Your task to perform on an android device: Is it going to rain this weekend? Image 0: 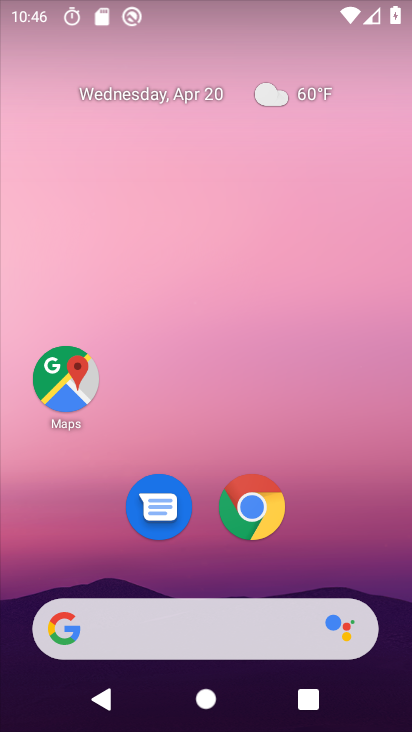
Step 0: drag from (227, 592) to (252, 115)
Your task to perform on an android device: Is it going to rain this weekend? Image 1: 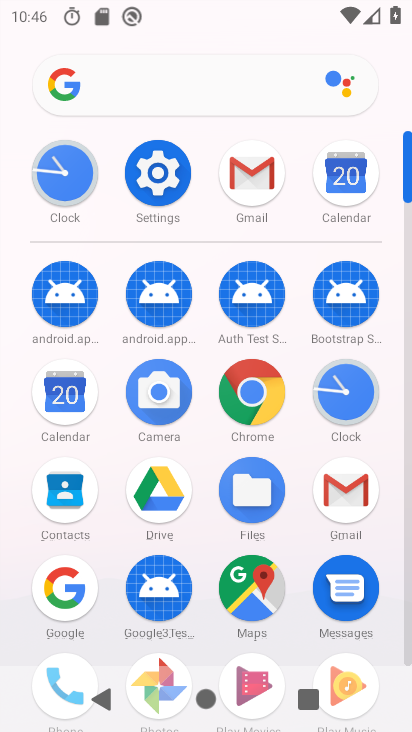
Step 1: click (250, 393)
Your task to perform on an android device: Is it going to rain this weekend? Image 2: 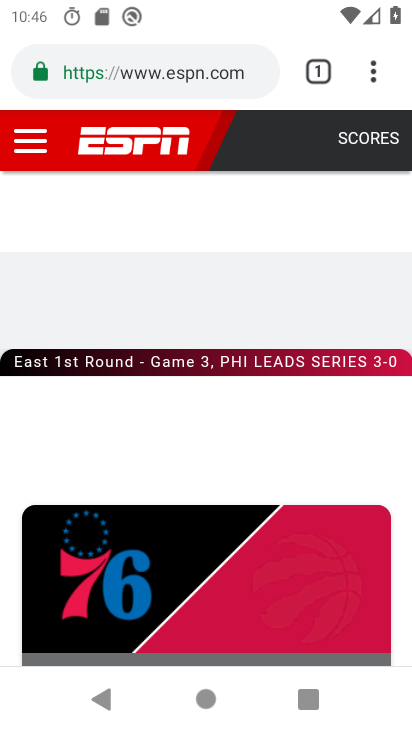
Step 2: click (91, 62)
Your task to perform on an android device: Is it going to rain this weekend? Image 3: 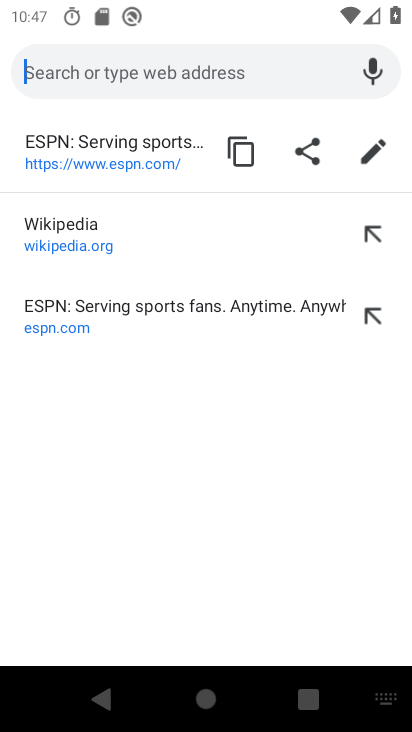
Step 3: type "is it going to rain this weekend?"
Your task to perform on an android device: Is it going to rain this weekend? Image 4: 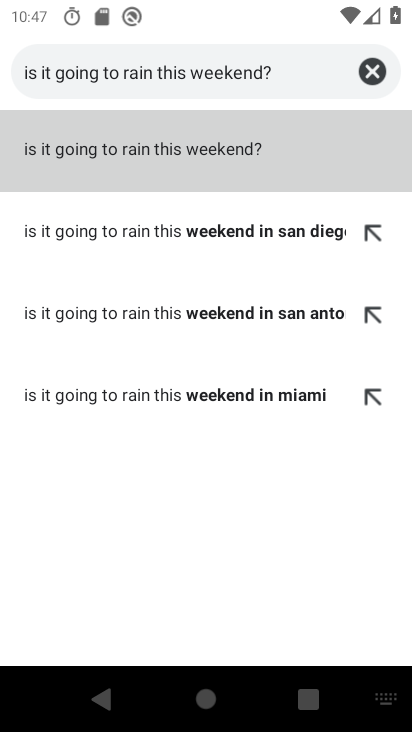
Step 4: click (276, 177)
Your task to perform on an android device: Is it going to rain this weekend? Image 5: 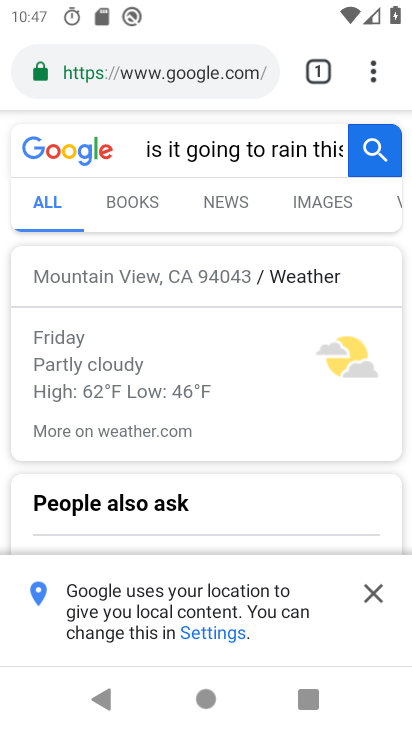
Step 5: task complete